Your task to perform on an android device: check out phone information Image 0: 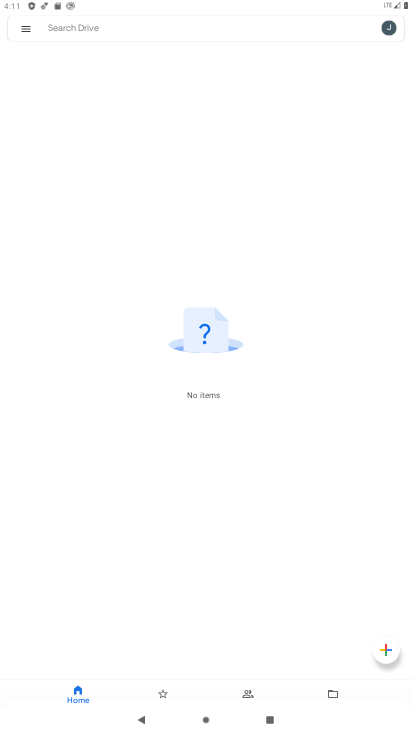
Step 0: press back button
Your task to perform on an android device: check out phone information Image 1: 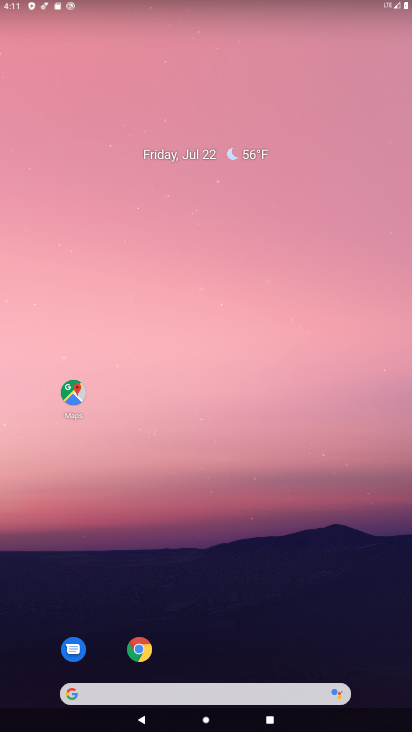
Step 1: drag from (171, 292) to (171, 121)
Your task to perform on an android device: check out phone information Image 2: 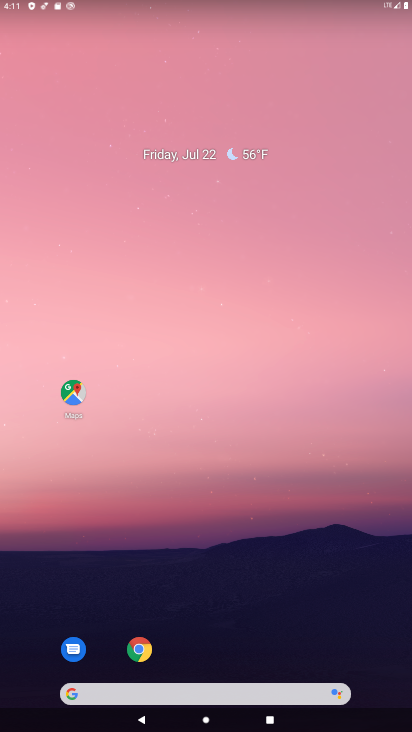
Step 2: drag from (221, 310) to (229, 4)
Your task to perform on an android device: check out phone information Image 3: 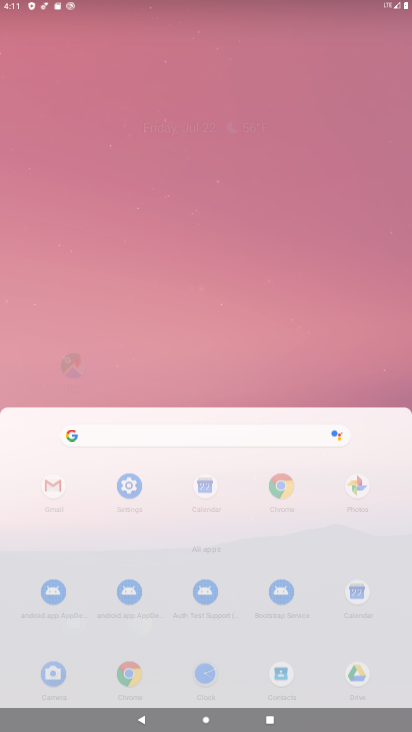
Step 3: drag from (211, 294) to (207, 39)
Your task to perform on an android device: check out phone information Image 4: 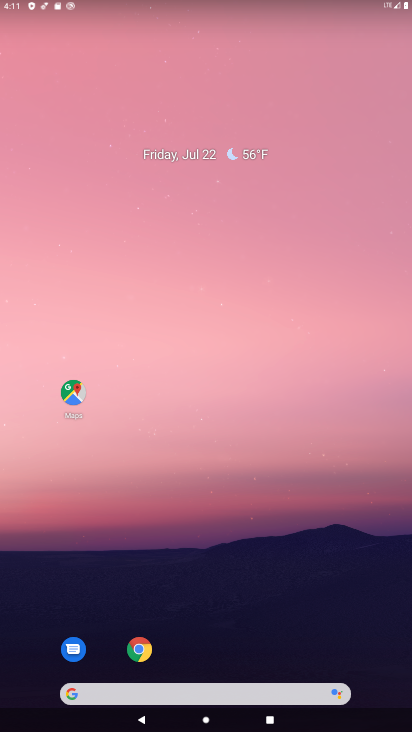
Step 4: drag from (219, 450) to (216, 18)
Your task to perform on an android device: check out phone information Image 5: 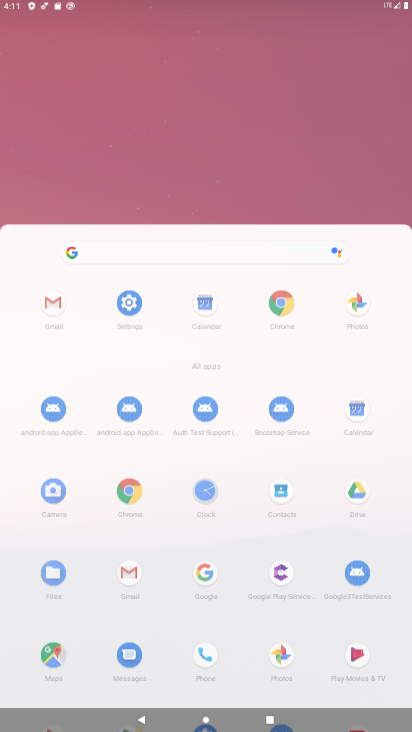
Step 5: drag from (206, 332) to (200, 12)
Your task to perform on an android device: check out phone information Image 6: 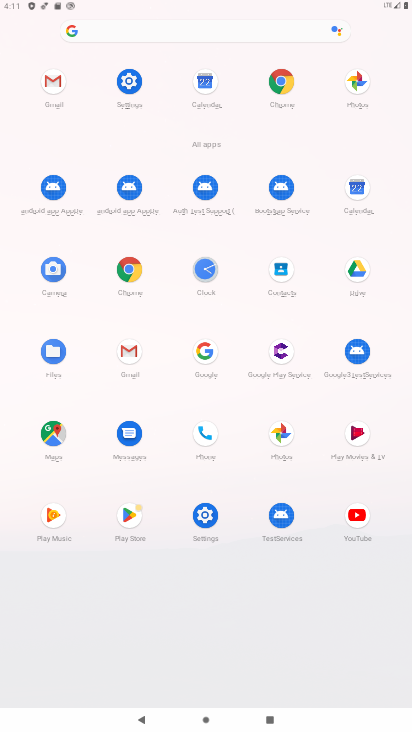
Step 6: drag from (171, 376) to (161, 34)
Your task to perform on an android device: check out phone information Image 7: 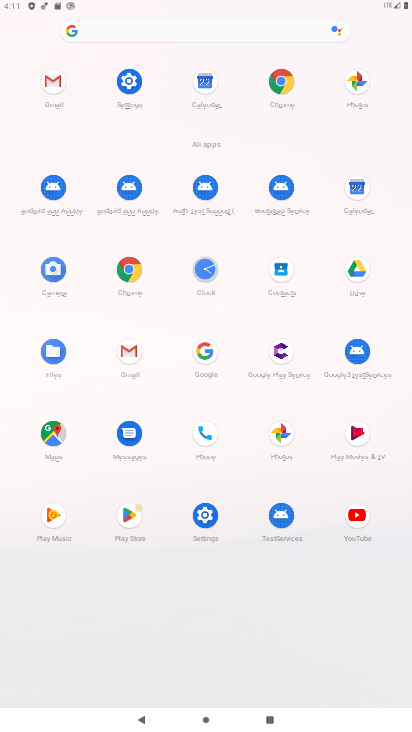
Step 7: click (207, 512)
Your task to perform on an android device: check out phone information Image 8: 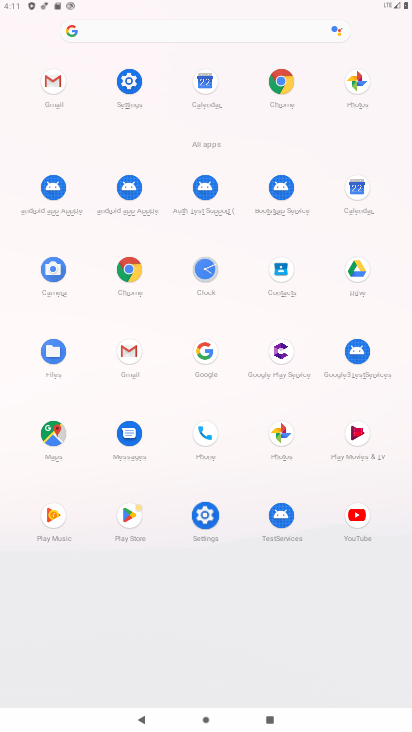
Step 8: click (203, 513)
Your task to perform on an android device: check out phone information Image 9: 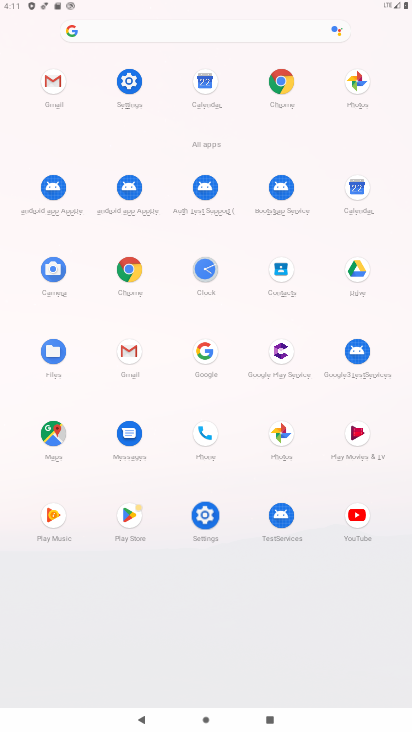
Step 9: click (203, 513)
Your task to perform on an android device: check out phone information Image 10: 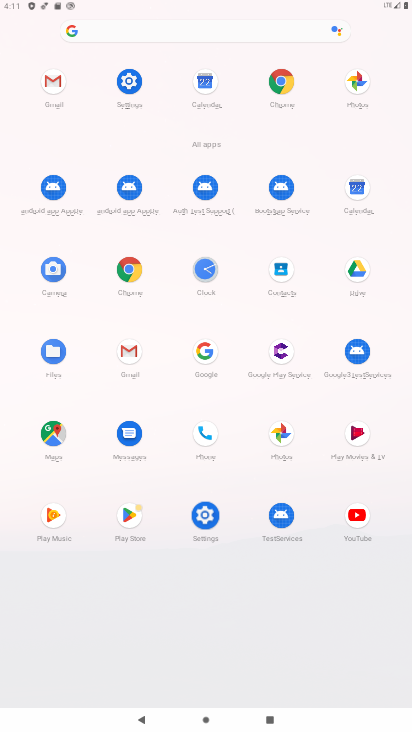
Step 10: click (204, 514)
Your task to perform on an android device: check out phone information Image 11: 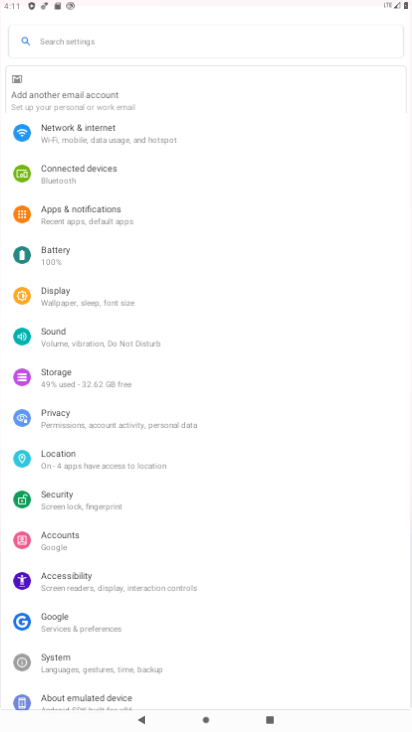
Step 11: click (205, 514)
Your task to perform on an android device: check out phone information Image 12: 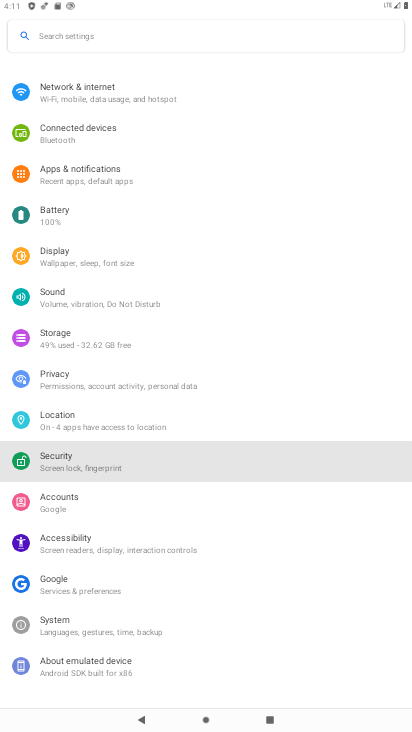
Step 12: click (214, 518)
Your task to perform on an android device: check out phone information Image 13: 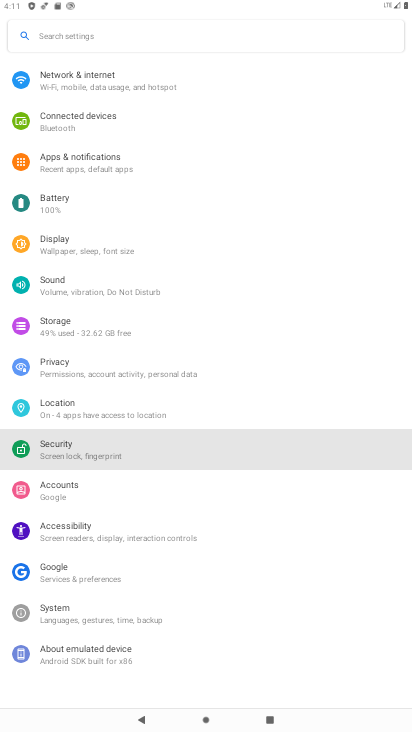
Step 13: click (215, 516)
Your task to perform on an android device: check out phone information Image 14: 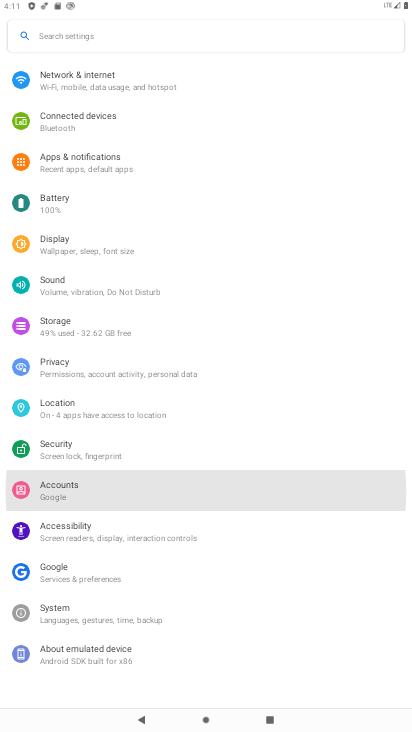
Step 14: click (217, 515)
Your task to perform on an android device: check out phone information Image 15: 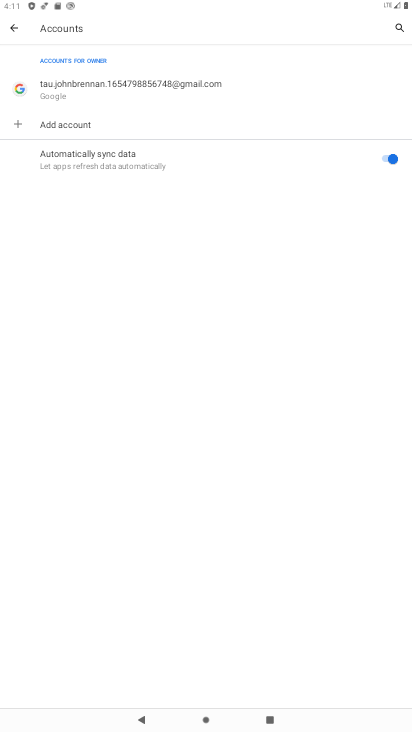
Step 15: click (16, 33)
Your task to perform on an android device: check out phone information Image 16: 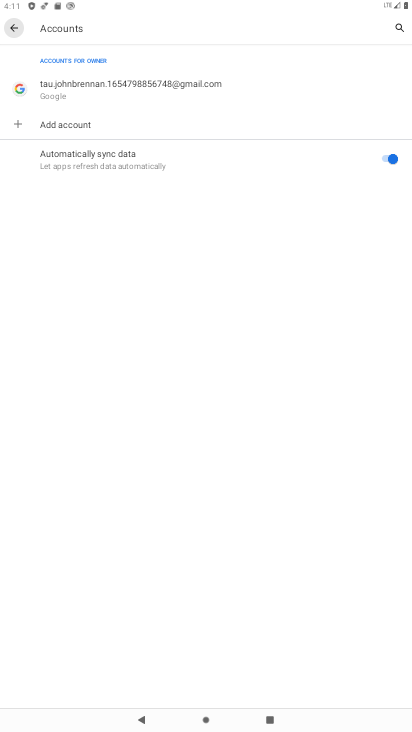
Step 16: click (15, 23)
Your task to perform on an android device: check out phone information Image 17: 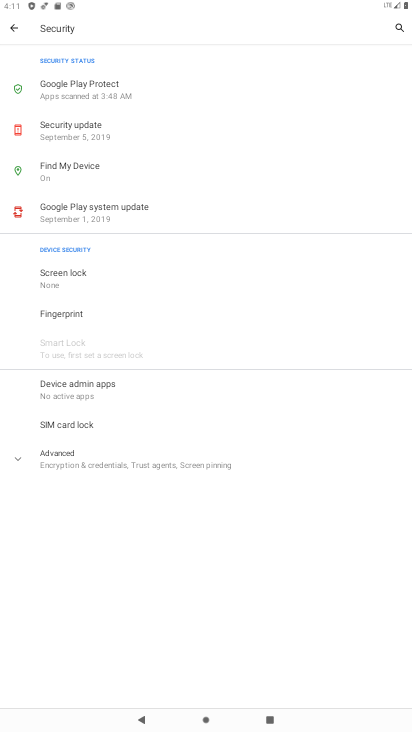
Step 17: click (14, 31)
Your task to perform on an android device: check out phone information Image 18: 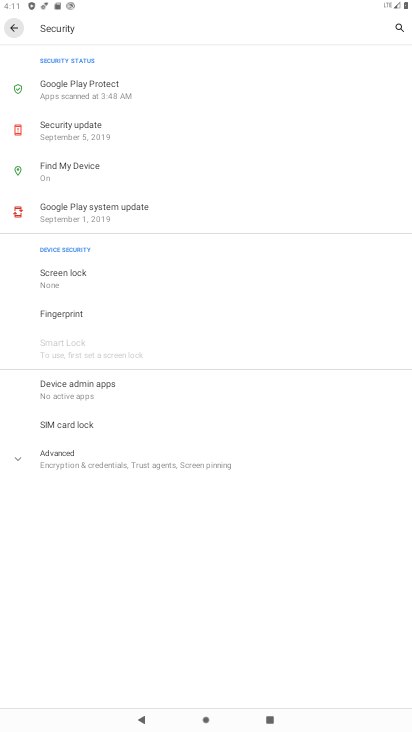
Step 18: click (18, 30)
Your task to perform on an android device: check out phone information Image 19: 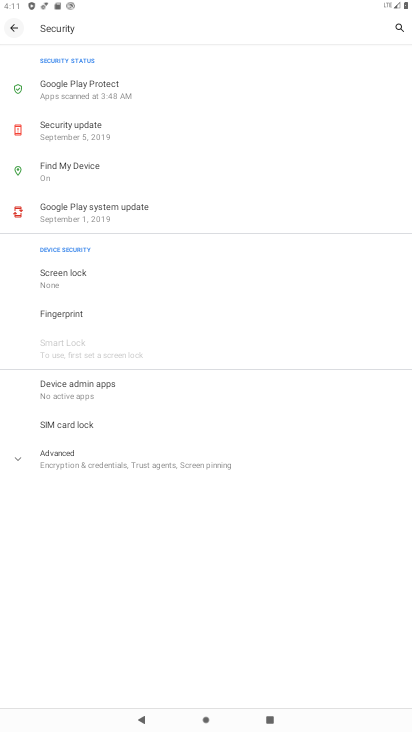
Step 19: click (21, 28)
Your task to perform on an android device: check out phone information Image 20: 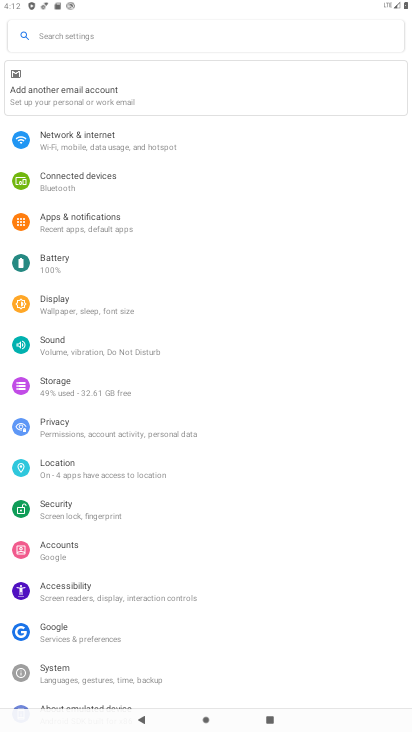
Step 20: drag from (87, 487) to (48, 139)
Your task to perform on an android device: check out phone information Image 21: 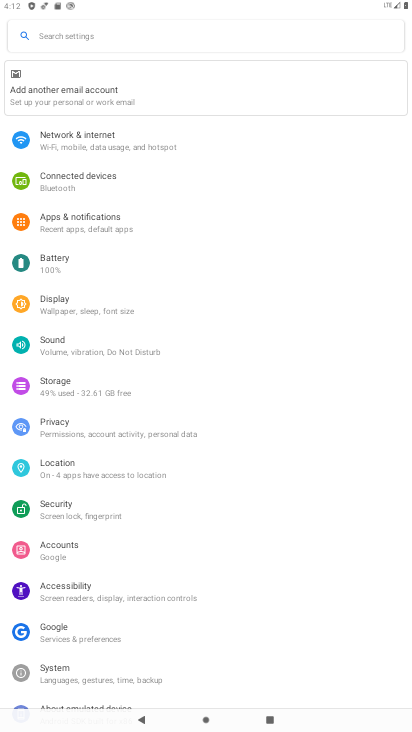
Step 21: click (58, 15)
Your task to perform on an android device: check out phone information Image 22: 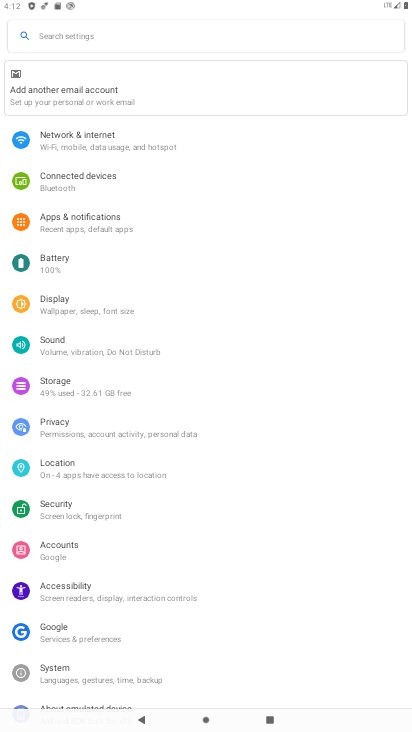
Step 22: click (100, 181)
Your task to perform on an android device: check out phone information Image 23: 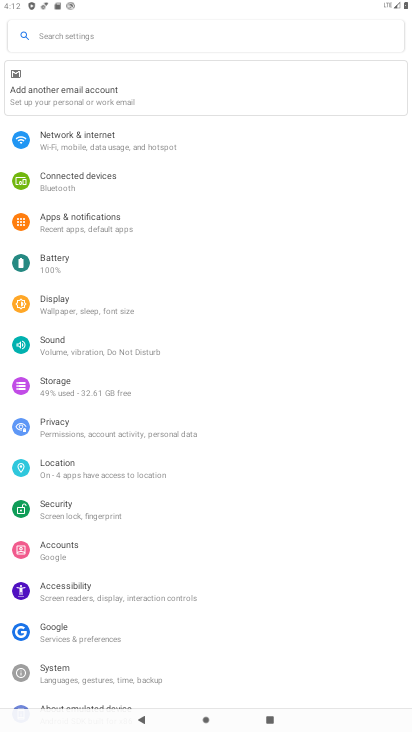
Step 23: task complete